Your task to perform on an android device: Search for "jbl charge 4" on walmart.com, select the first entry, add it to the cart, then select checkout. Image 0: 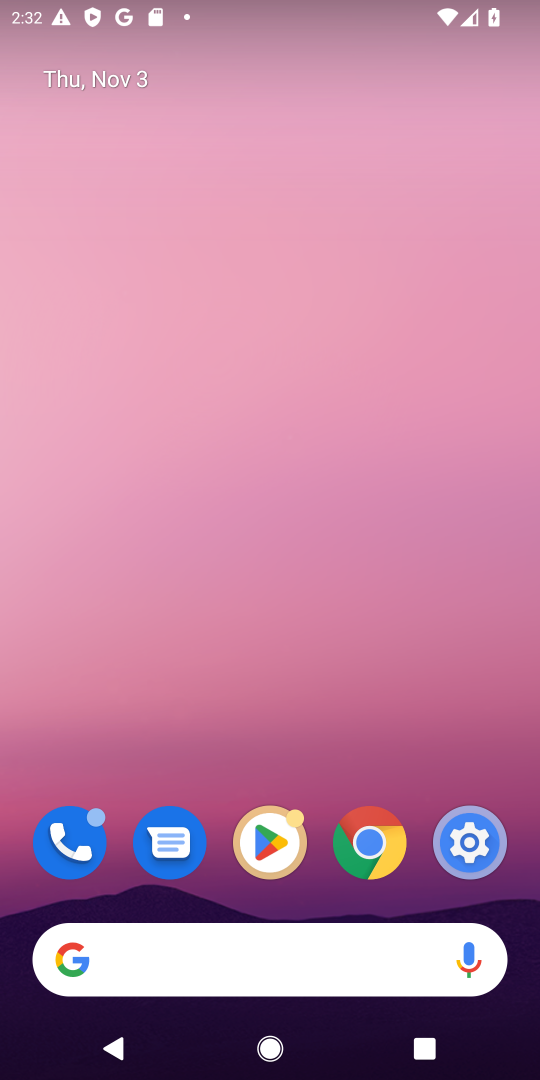
Step 0: press home button
Your task to perform on an android device: Search for "jbl charge 4" on walmart.com, select the first entry, add it to the cart, then select checkout. Image 1: 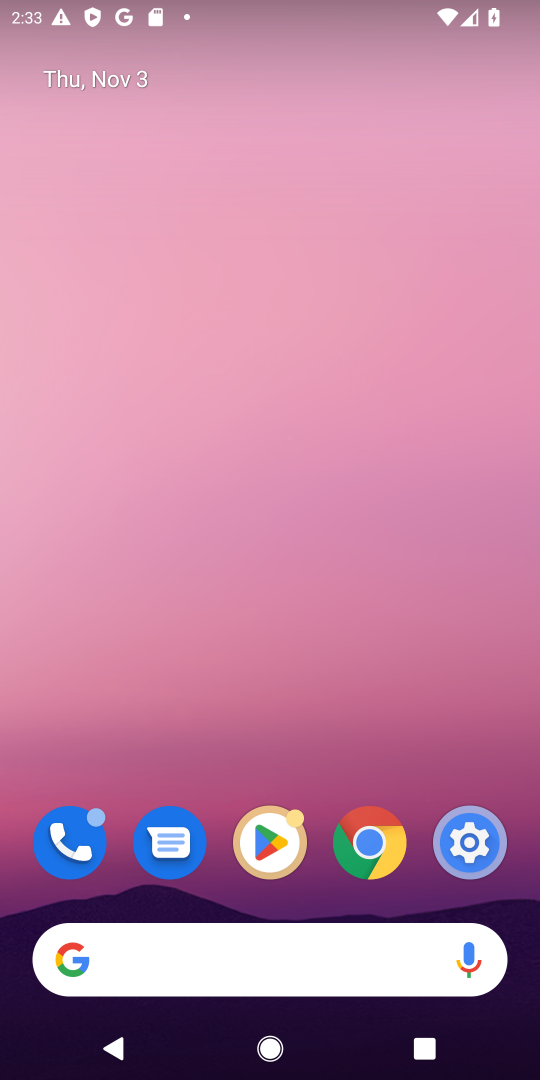
Step 1: click (113, 961)
Your task to perform on an android device: Search for "jbl charge 4" on walmart.com, select the first entry, add it to the cart, then select checkout. Image 2: 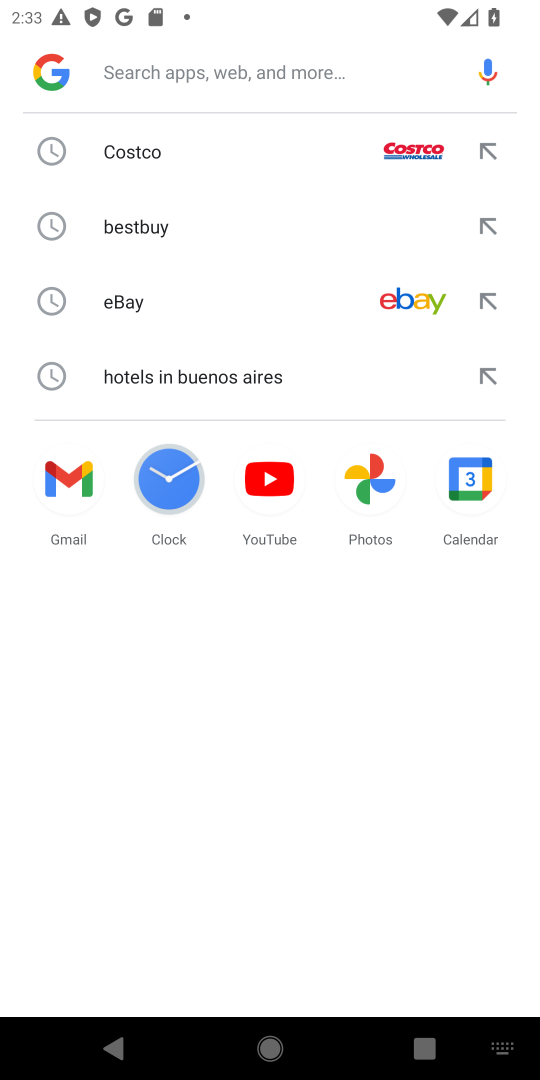
Step 2: type "walmart.com"
Your task to perform on an android device: Search for "jbl charge 4" on walmart.com, select the first entry, add it to the cart, then select checkout. Image 3: 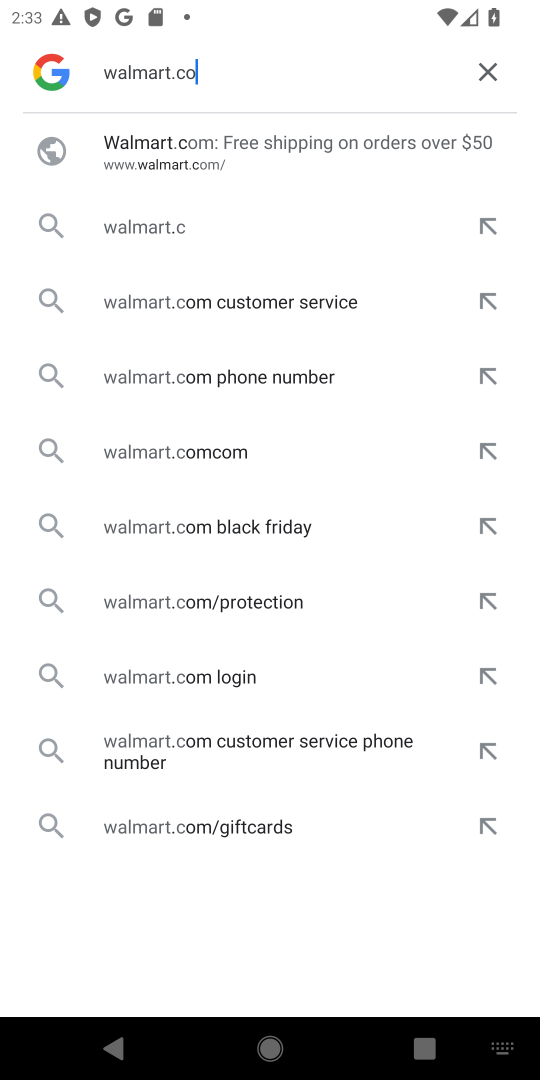
Step 3: press enter
Your task to perform on an android device: Search for "jbl charge 4" on walmart.com, select the first entry, add it to the cart, then select checkout. Image 4: 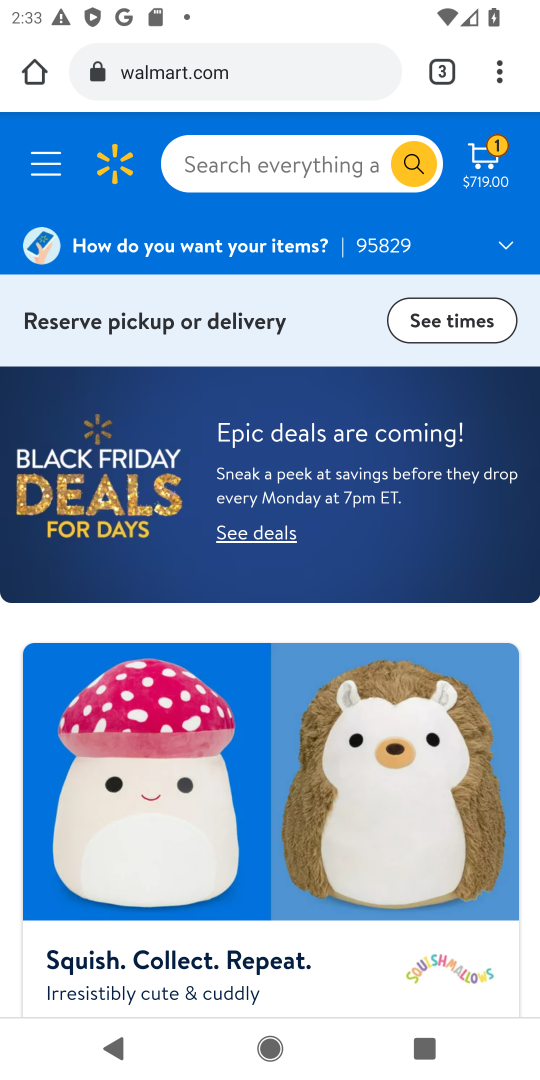
Step 4: click (219, 160)
Your task to perform on an android device: Search for "jbl charge 4" on walmart.com, select the first entry, add it to the cart, then select checkout. Image 5: 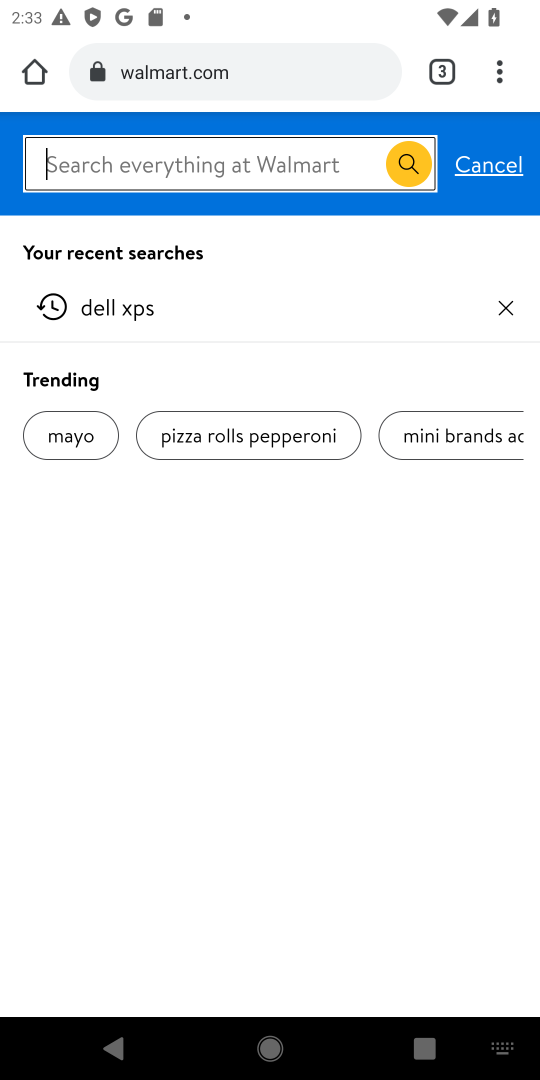
Step 5: type "jbl charge 4"
Your task to perform on an android device: Search for "jbl charge 4" on walmart.com, select the first entry, add it to the cart, then select checkout. Image 6: 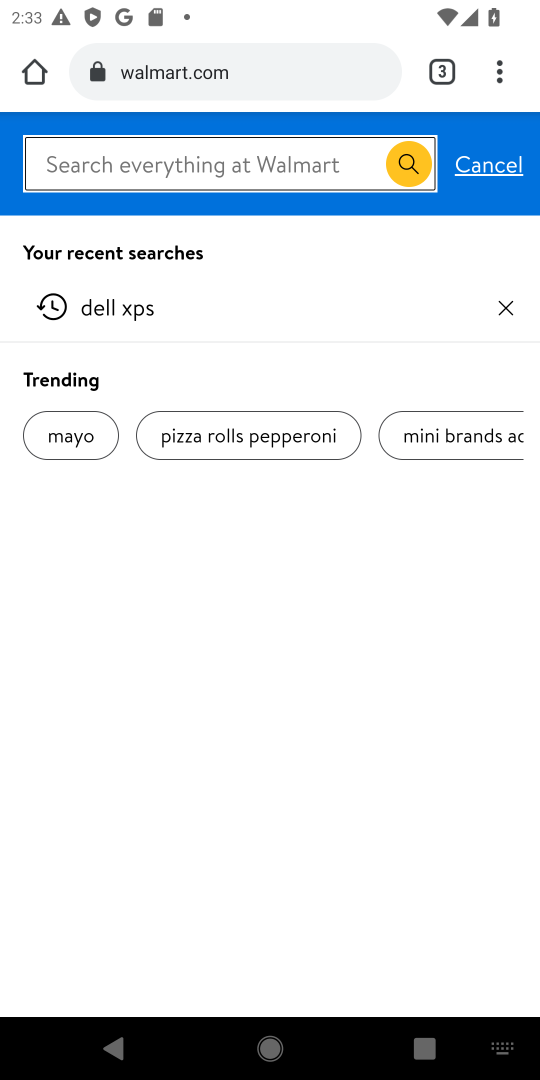
Step 6: press enter
Your task to perform on an android device: Search for "jbl charge 4" on walmart.com, select the first entry, add it to the cart, then select checkout. Image 7: 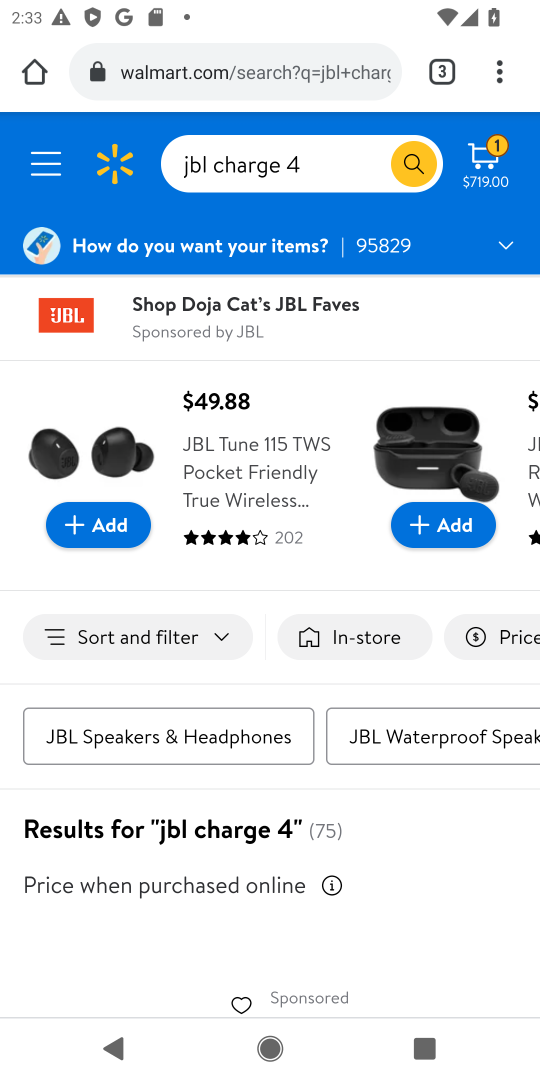
Step 7: drag from (396, 874) to (399, 640)
Your task to perform on an android device: Search for "jbl charge 4" on walmart.com, select the first entry, add it to the cart, then select checkout. Image 8: 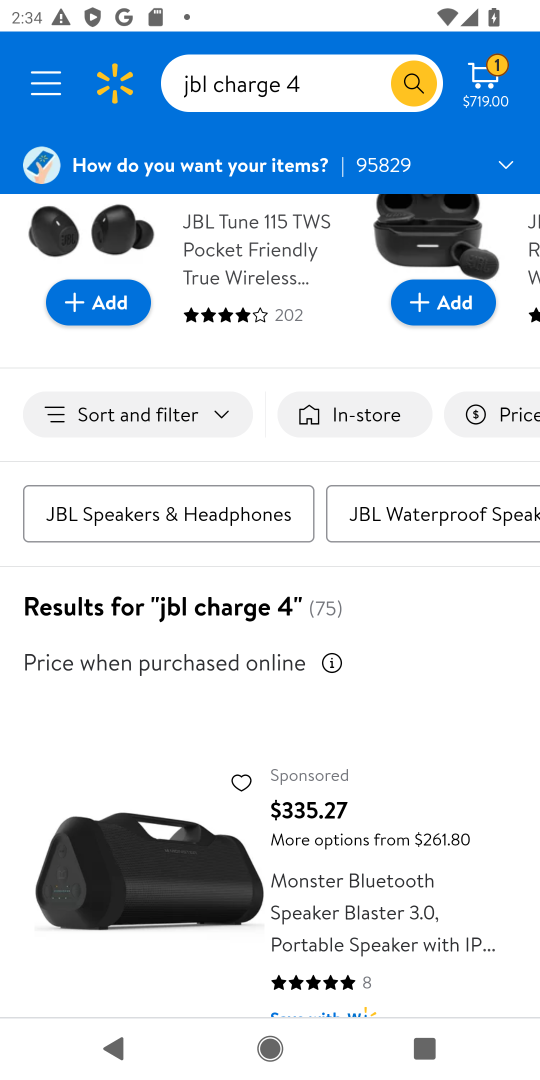
Step 8: drag from (372, 907) to (381, 551)
Your task to perform on an android device: Search for "jbl charge 4" on walmart.com, select the first entry, add it to the cart, then select checkout. Image 9: 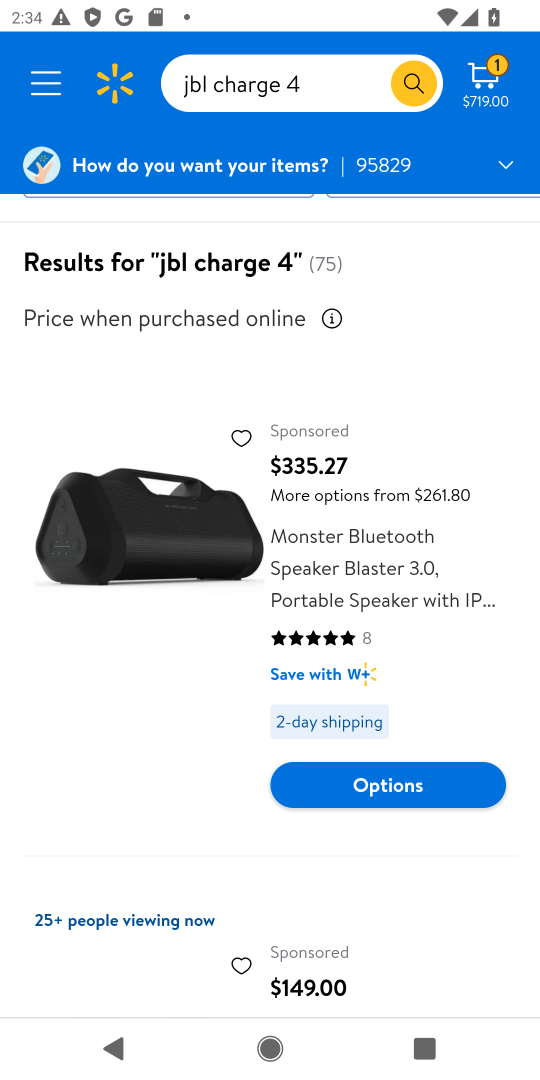
Step 9: drag from (348, 906) to (357, 483)
Your task to perform on an android device: Search for "jbl charge 4" on walmart.com, select the first entry, add it to the cart, then select checkout. Image 10: 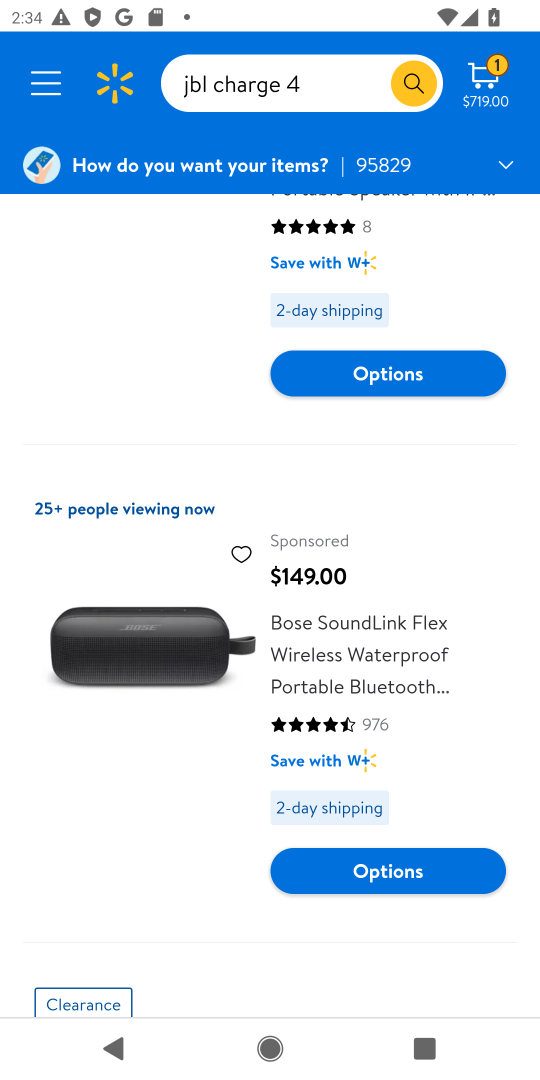
Step 10: drag from (203, 823) to (204, 494)
Your task to perform on an android device: Search for "jbl charge 4" on walmart.com, select the first entry, add it to the cart, then select checkout. Image 11: 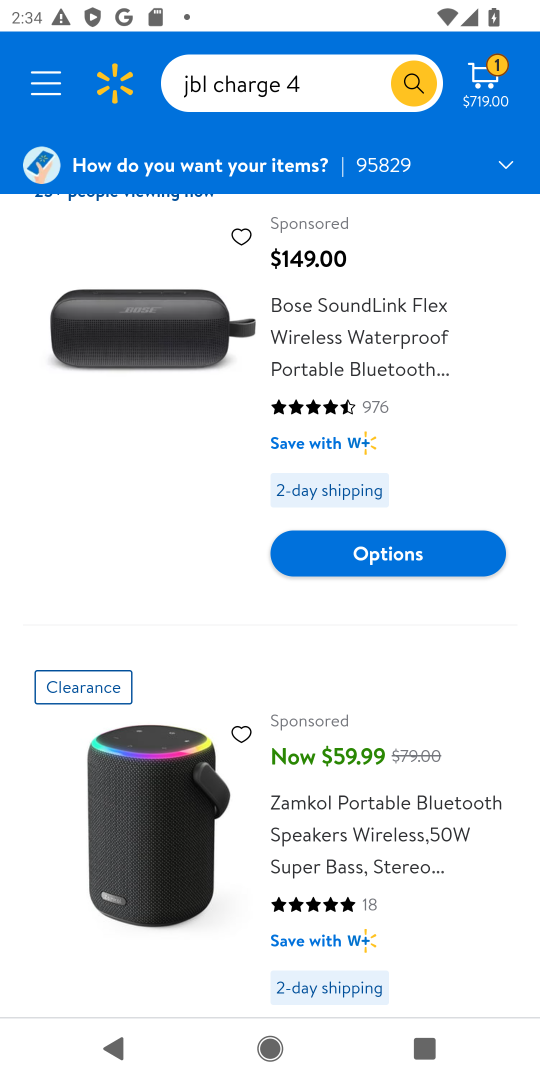
Step 11: drag from (240, 902) to (297, 525)
Your task to perform on an android device: Search for "jbl charge 4" on walmart.com, select the first entry, add it to the cart, then select checkout. Image 12: 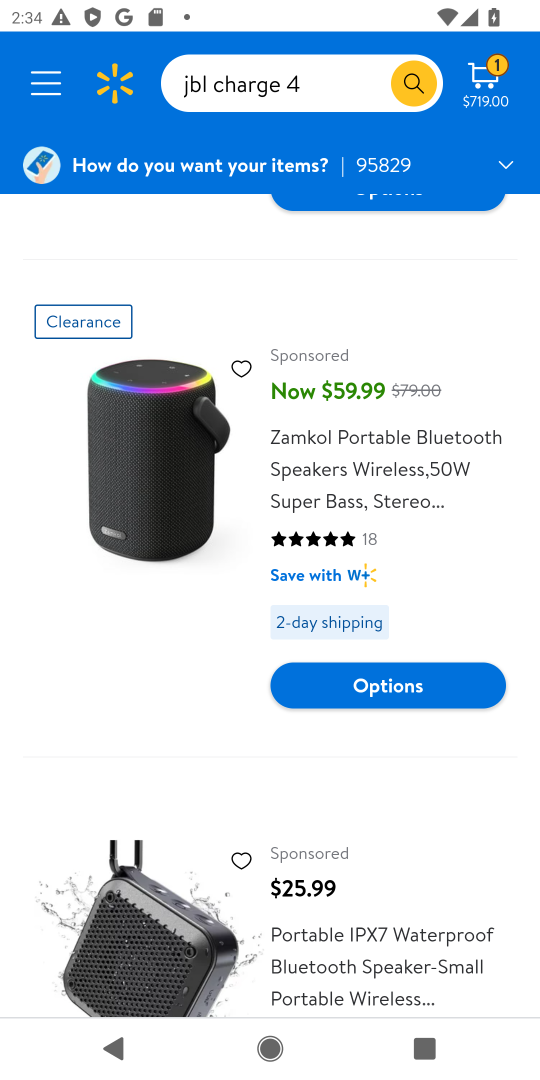
Step 12: drag from (327, 932) to (358, 509)
Your task to perform on an android device: Search for "jbl charge 4" on walmart.com, select the first entry, add it to the cart, then select checkout. Image 13: 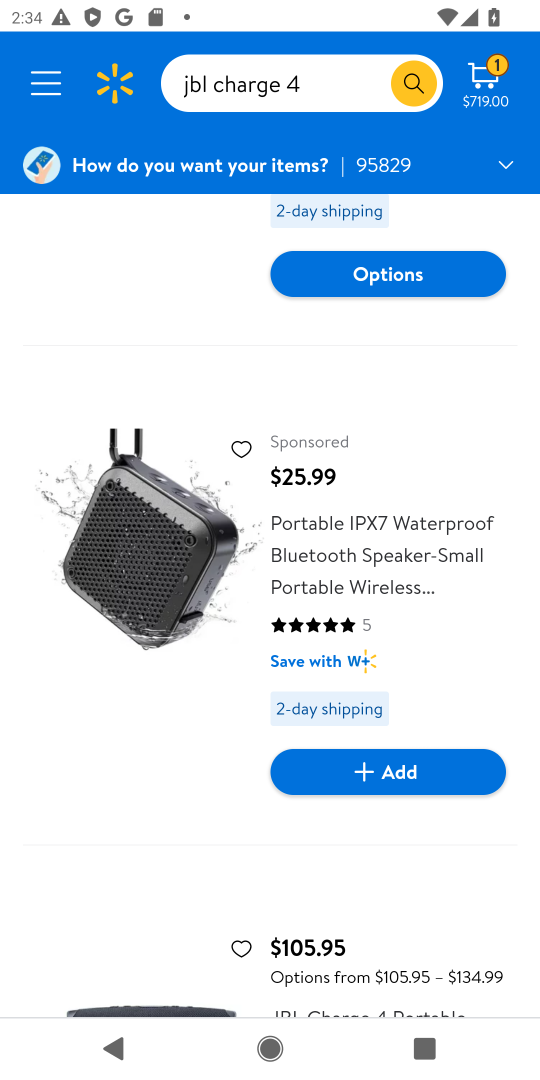
Step 13: drag from (367, 950) to (378, 507)
Your task to perform on an android device: Search for "jbl charge 4" on walmart.com, select the first entry, add it to the cart, then select checkout. Image 14: 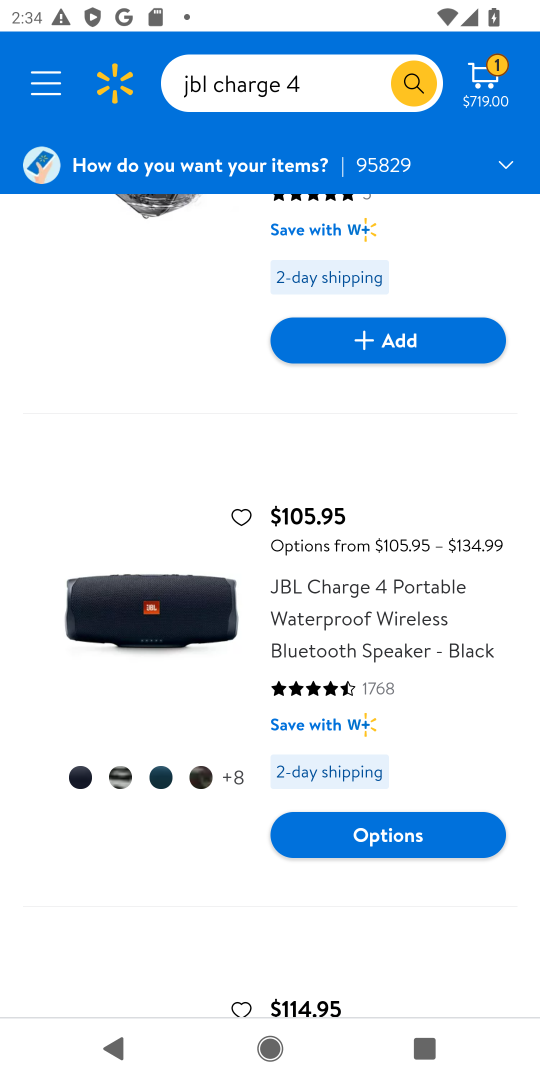
Step 14: drag from (327, 933) to (348, 693)
Your task to perform on an android device: Search for "jbl charge 4" on walmart.com, select the first entry, add it to the cart, then select checkout. Image 15: 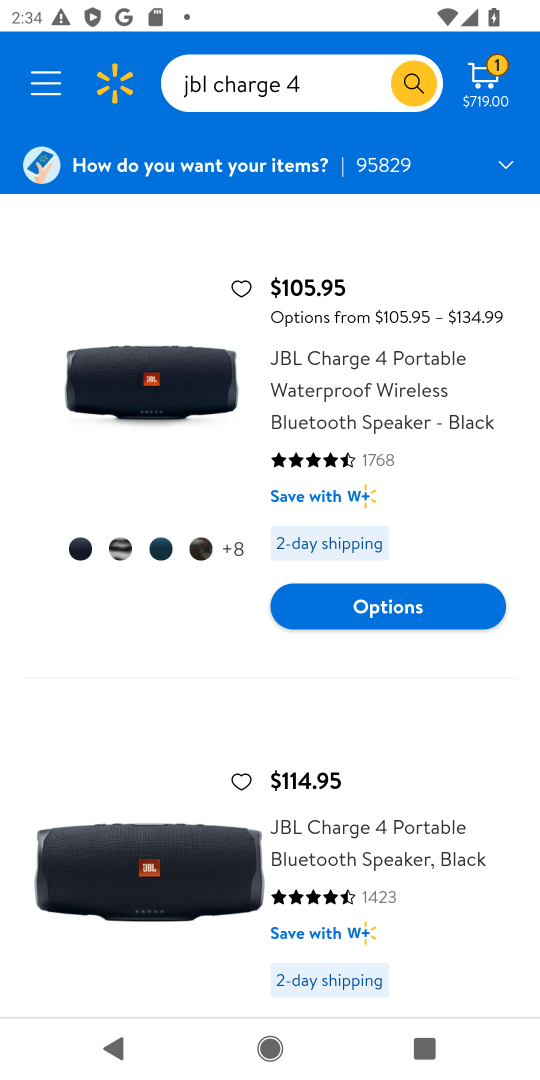
Step 15: click (341, 383)
Your task to perform on an android device: Search for "jbl charge 4" on walmart.com, select the first entry, add it to the cart, then select checkout. Image 16: 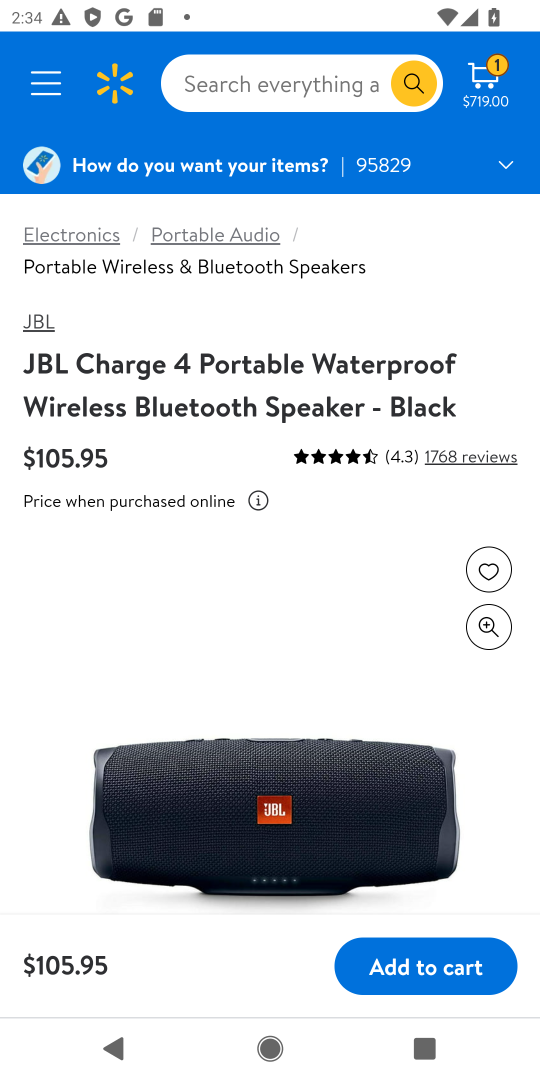
Step 16: click (406, 976)
Your task to perform on an android device: Search for "jbl charge 4" on walmart.com, select the first entry, add it to the cart, then select checkout. Image 17: 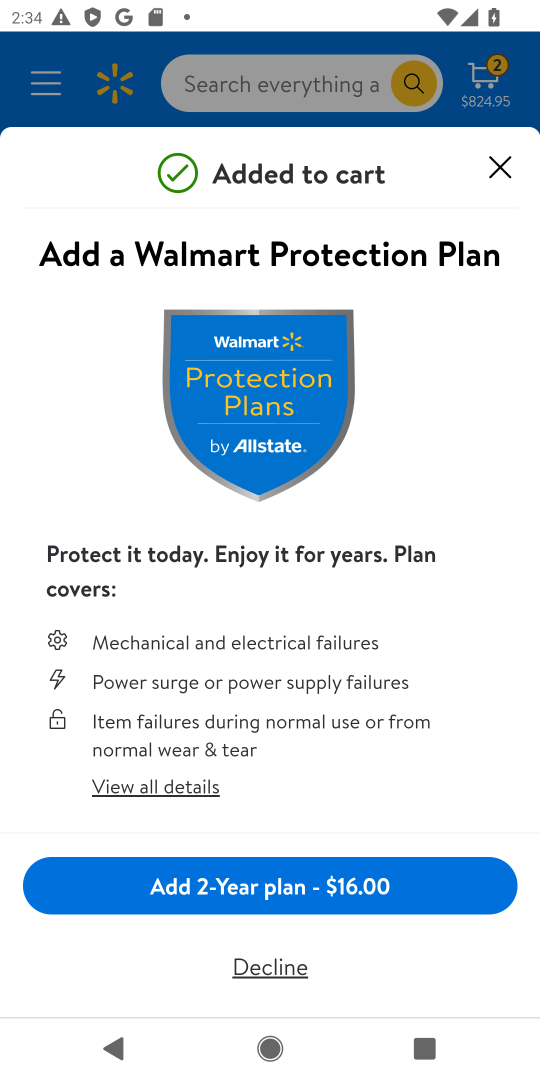
Step 17: click (267, 975)
Your task to perform on an android device: Search for "jbl charge 4" on walmart.com, select the first entry, add it to the cart, then select checkout. Image 18: 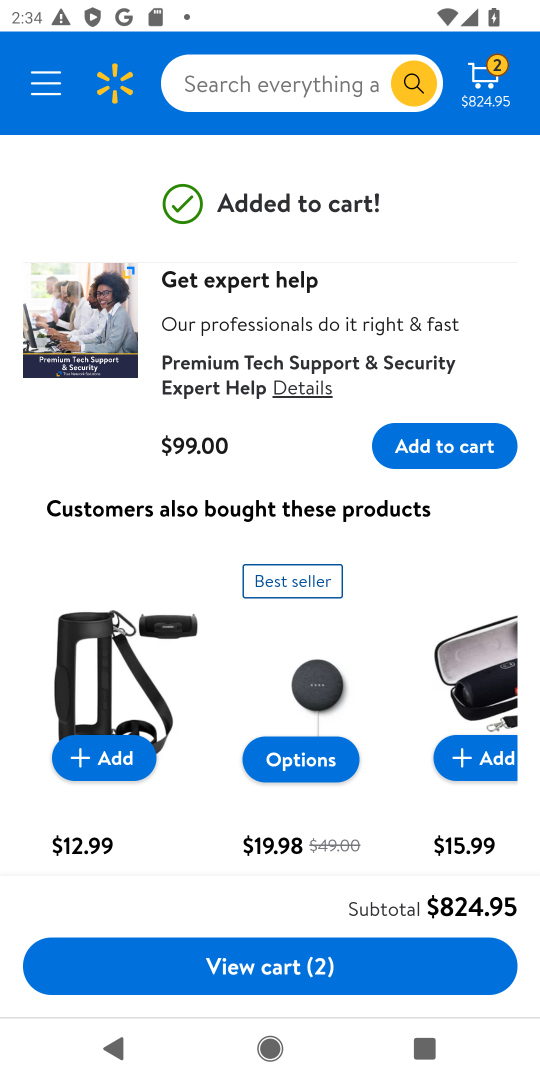
Step 18: click (231, 967)
Your task to perform on an android device: Search for "jbl charge 4" on walmart.com, select the first entry, add it to the cart, then select checkout. Image 19: 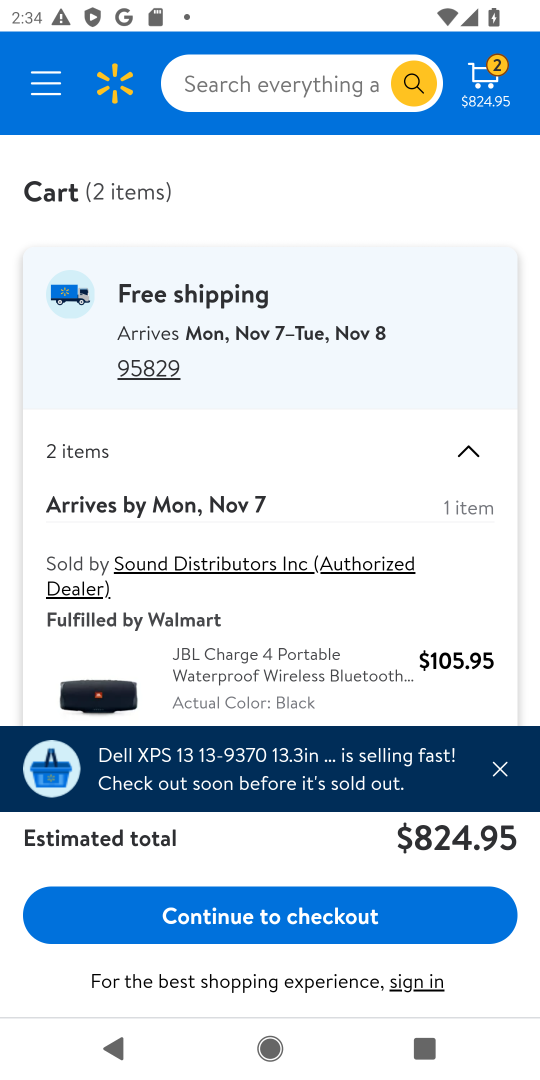
Step 19: click (313, 917)
Your task to perform on an android device: Search for "jbl charge 4" on walmart.com, select the first entry, add it to the cart, then select checkout. Image 20: 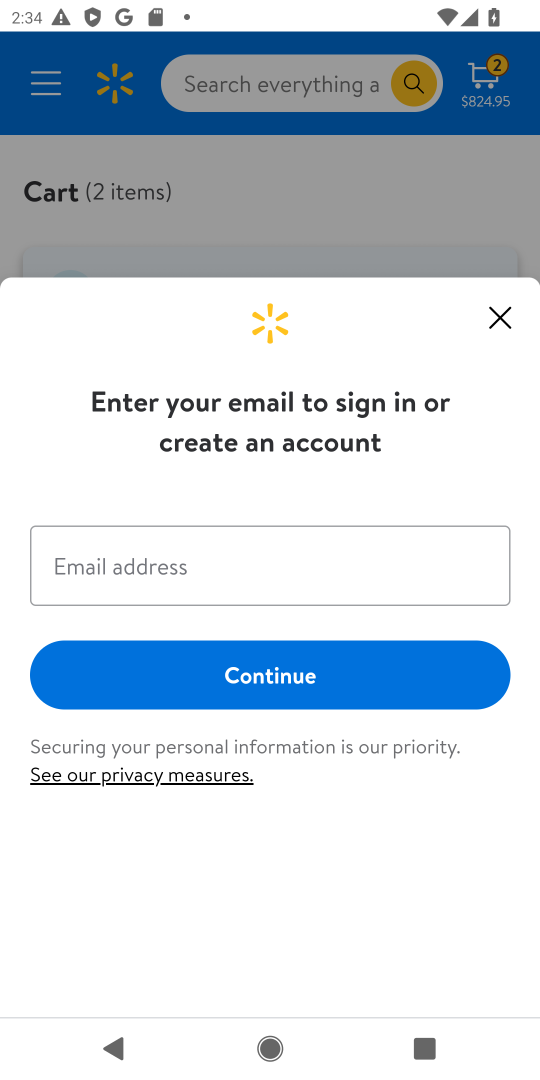
Step 20: task complete